Your task to perform on an android device: Toggle the flashlight Image 0: 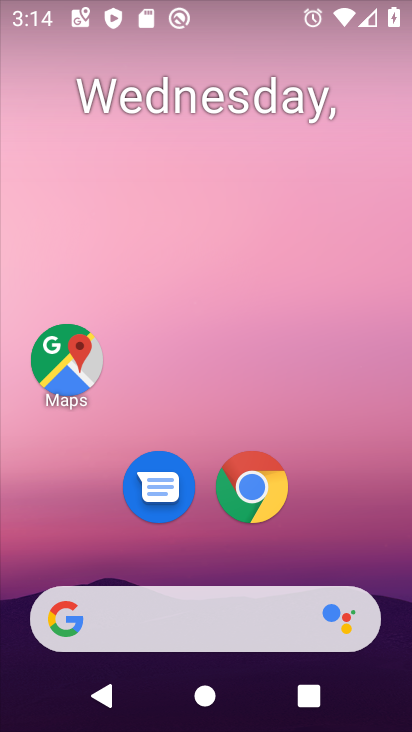
Step 0: drag from (237, 5) to (252, 416)
Your task to perform on an android device: Toggle the flashlight Image 1: 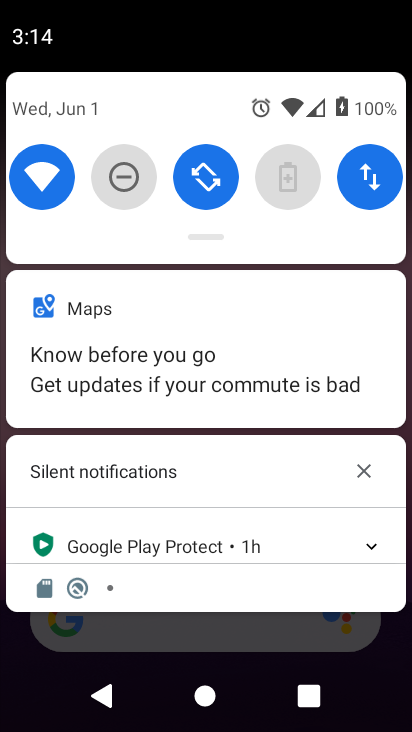
Step 1: drag from (221, 91) to (222, 371)
Your task to perform on an android device: Toggle the flashlight Image 2: 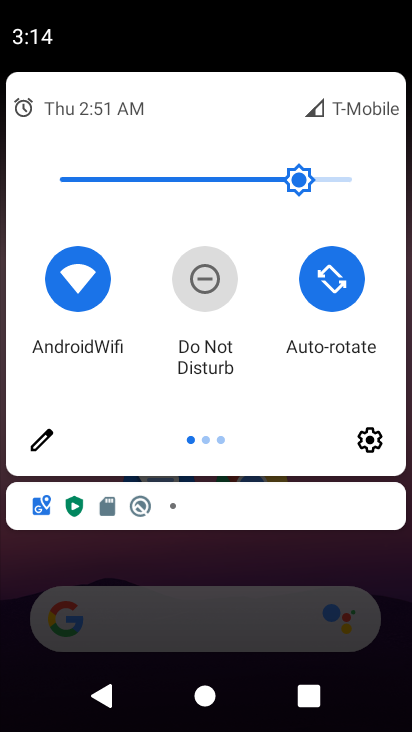
Step 2: click (37, 450)
Your task to perform on an android device: Toggle the flashlight Image 3: 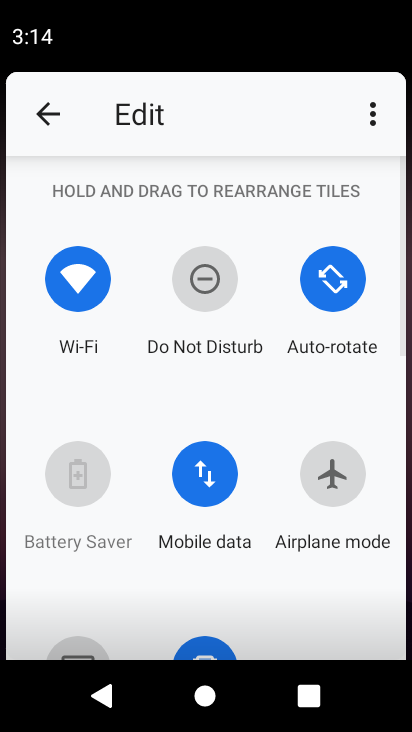
Step 3: task complete